Your task to perform on an android device: show emergency info Image 0: 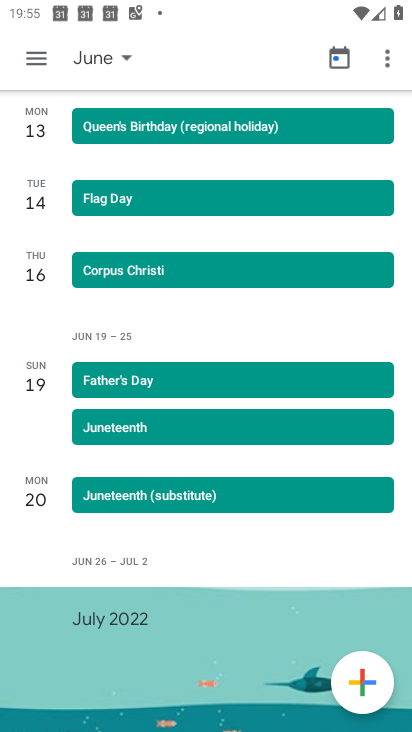
Step 0: press home button
Your task to perform on an android device: show emergency info Image 1: 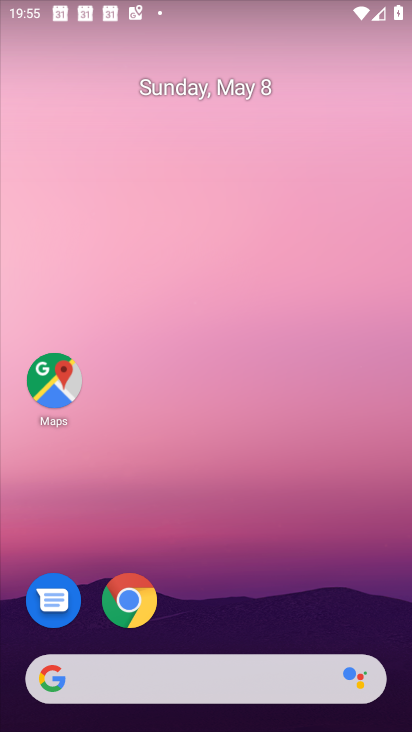
Step 1: drag from (239, 678) to (232, 217)
Your task to perform on an android device: show emergency info Image 2: 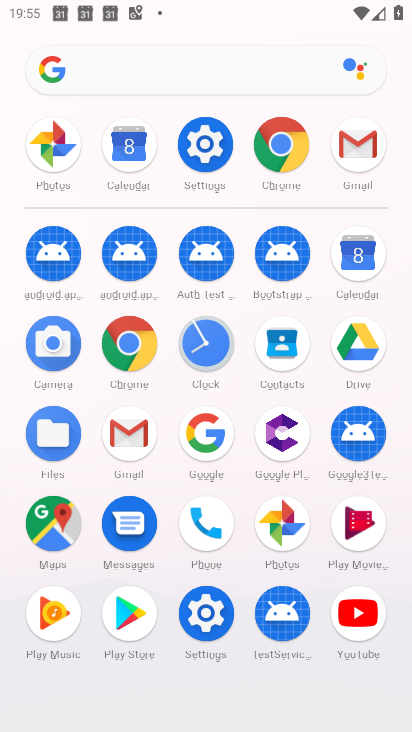
Step 2: click (206, 603)
Your task to perform on an android device: show emergency info Image 3: 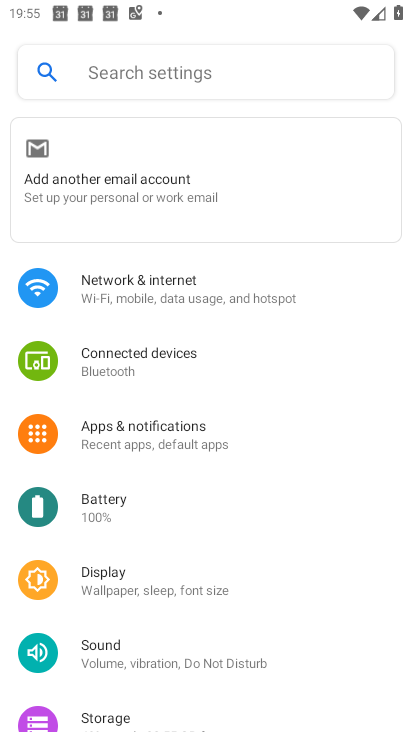
Step 3: click (150, 61)
Your task to perform on an android device: show emergency info Image 4: 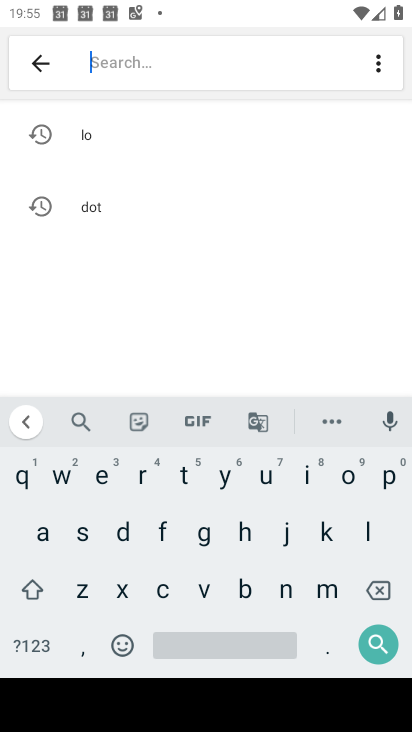
Step 4: click (105, 474)
Your task to perform on an android device: show emergency info Image 5: 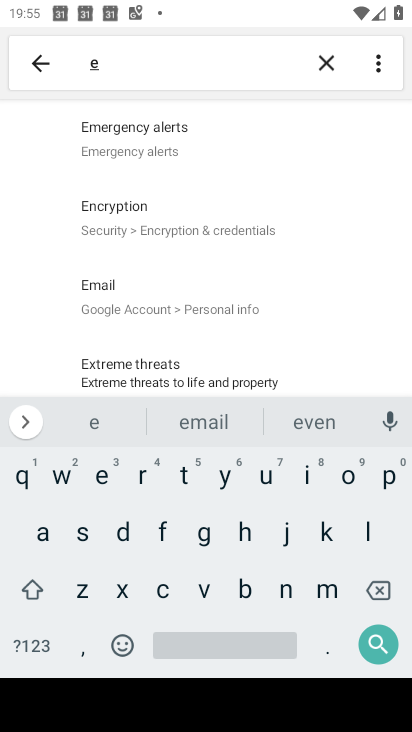
Step 5: click (322, 579)
Your task to perform on an android device: show emergency info Image 6: 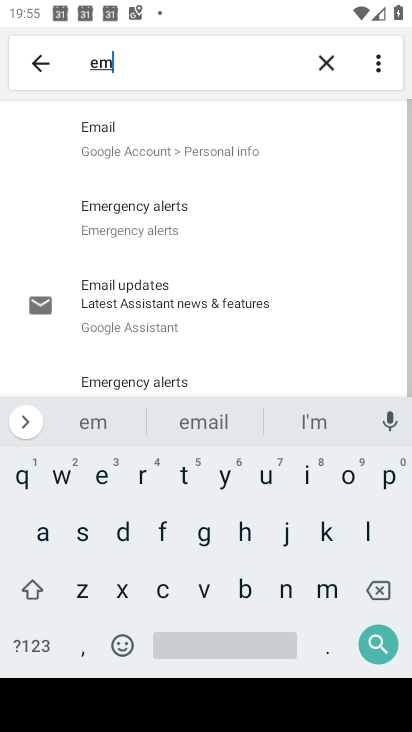
Step 6: click (97, 483)
Your task to perform on an android device: show emergency info Image 7: 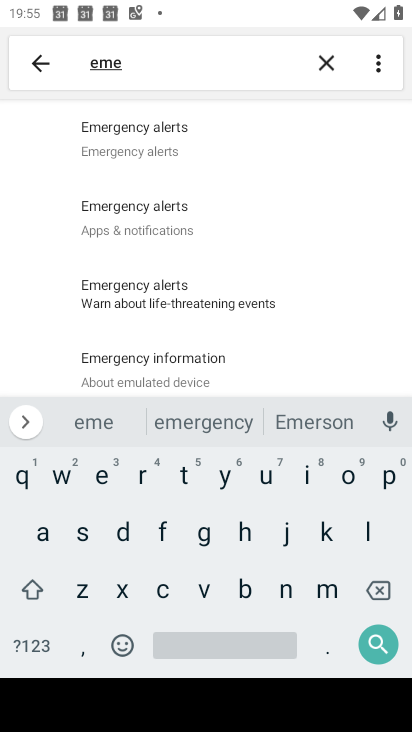
Step 7: click (188, 425)
Your task to perform on an android device: show emergency info Image 8: 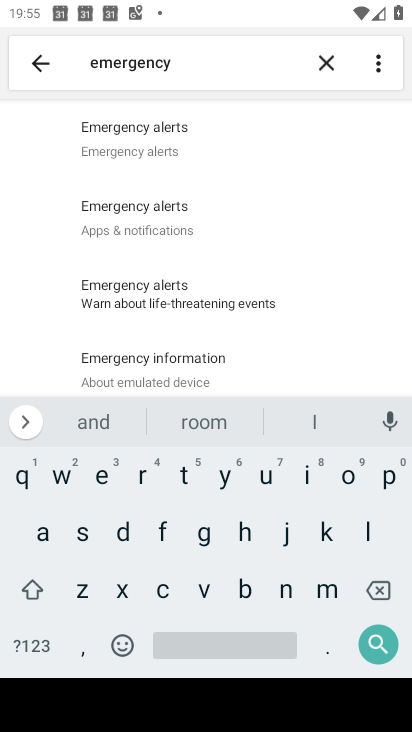
Step 8: click (303, 479)
Your task to perform on an android device: show emergency info Image 9: 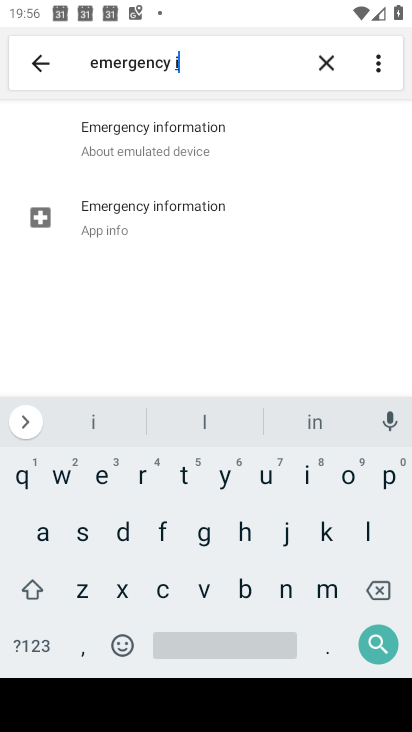
Step 9: click (165, 153)
Your task to perform on an android device: show emergency info Image 10: 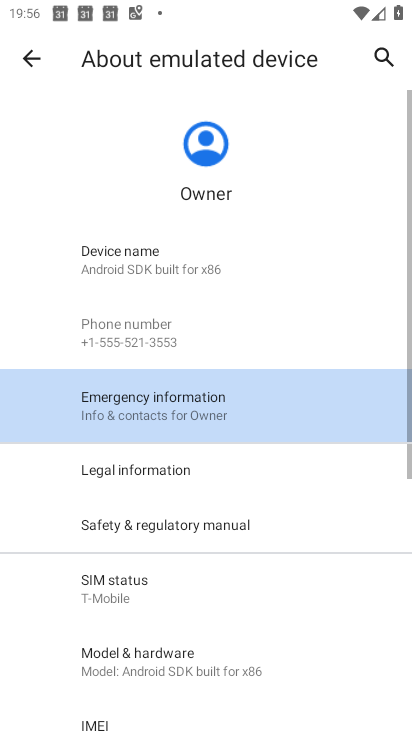
Step 10: click (177, 402)
Your task to perform on an android device: show emergency info Image 11: 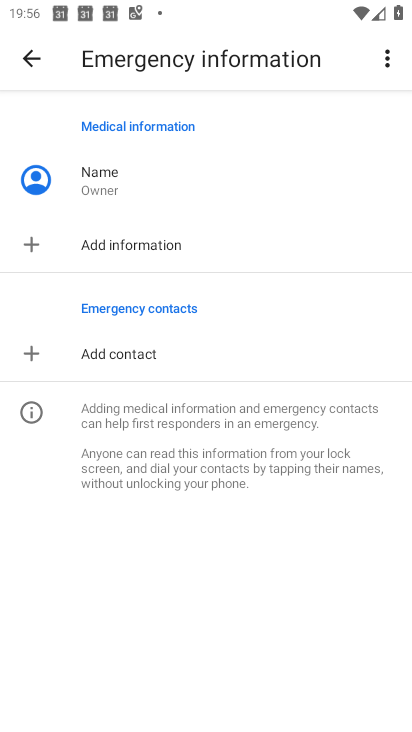
Step 11: task complete